Your task to perform on an android device: see creations saved in the google photos Image 0: 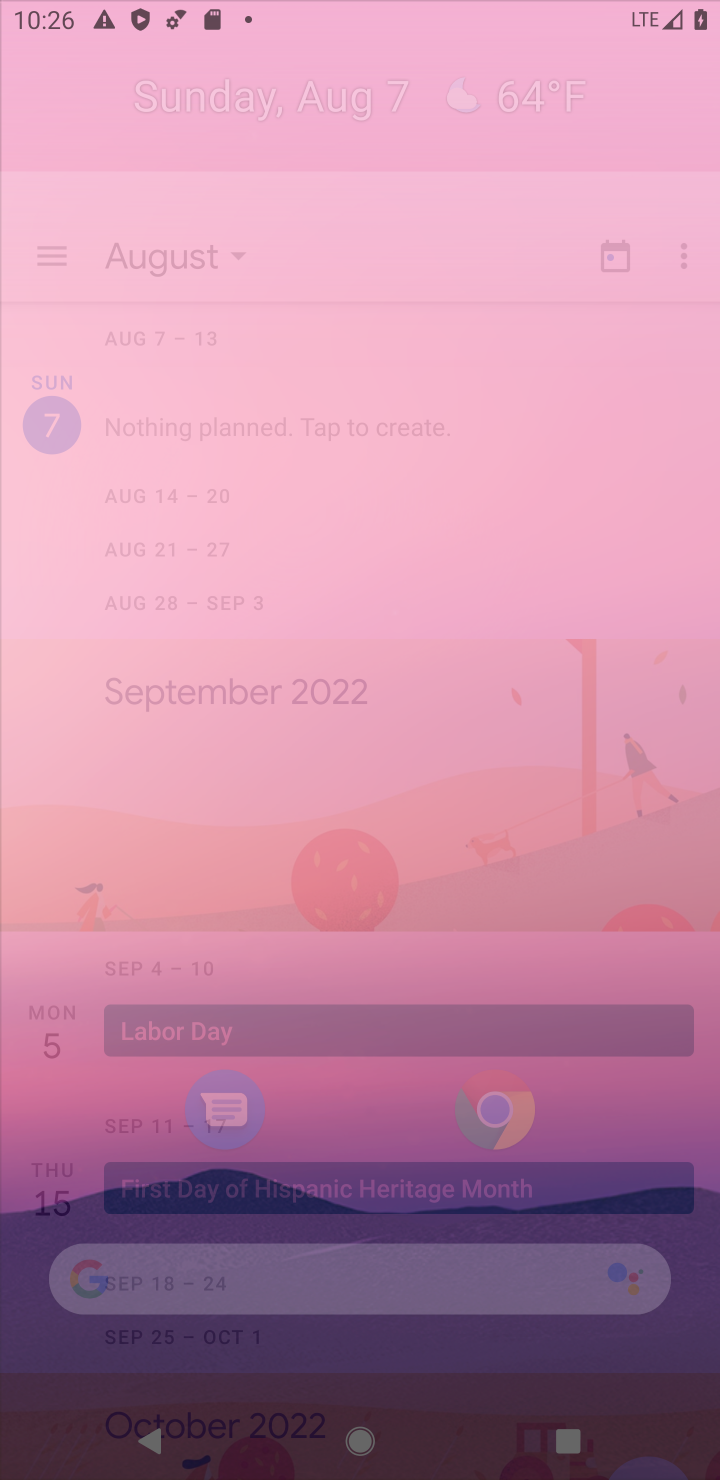
Step 0: press home button
Your task to perform on an android device: see creations saved in the google photos Image 1: 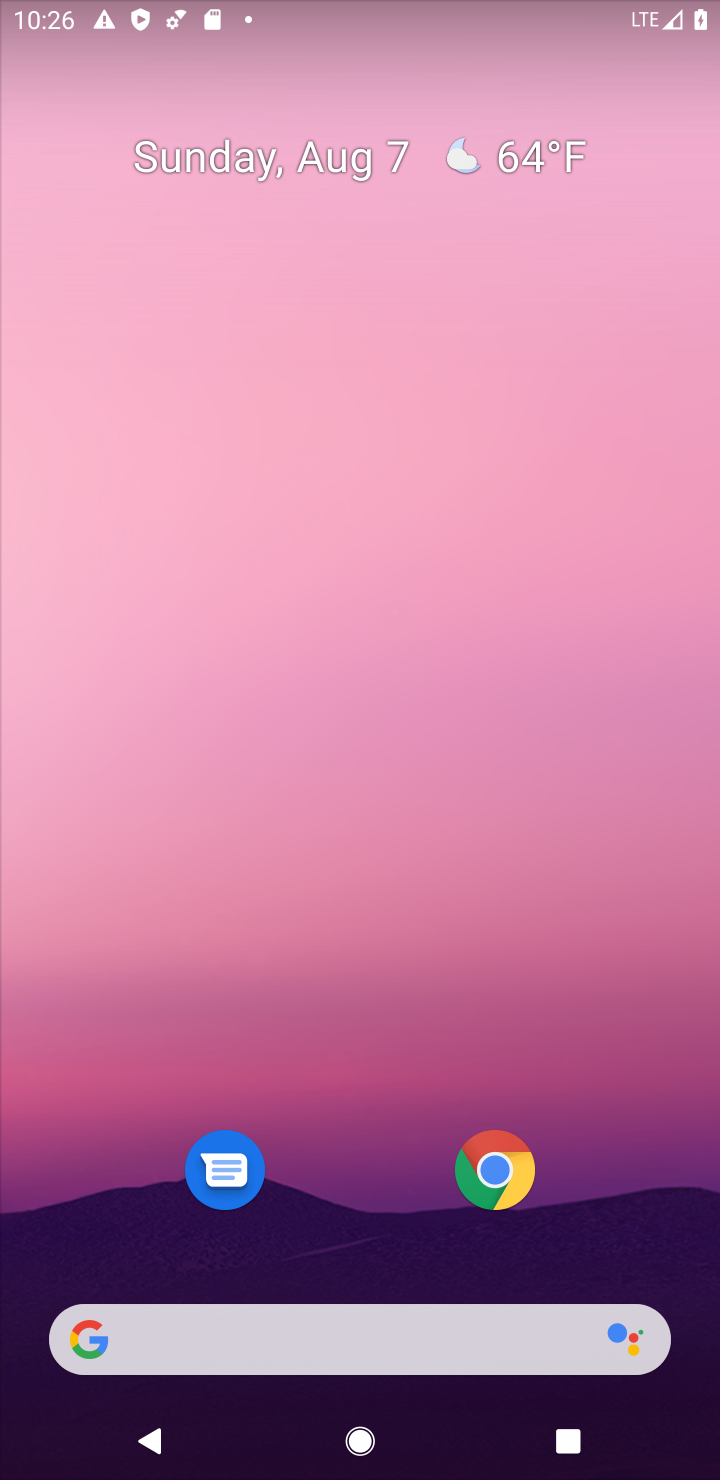
Step 1: drag from (447, 1326) to (440, 43)
Your task to perform on an android device: see creations saved in the google photos Image 2: 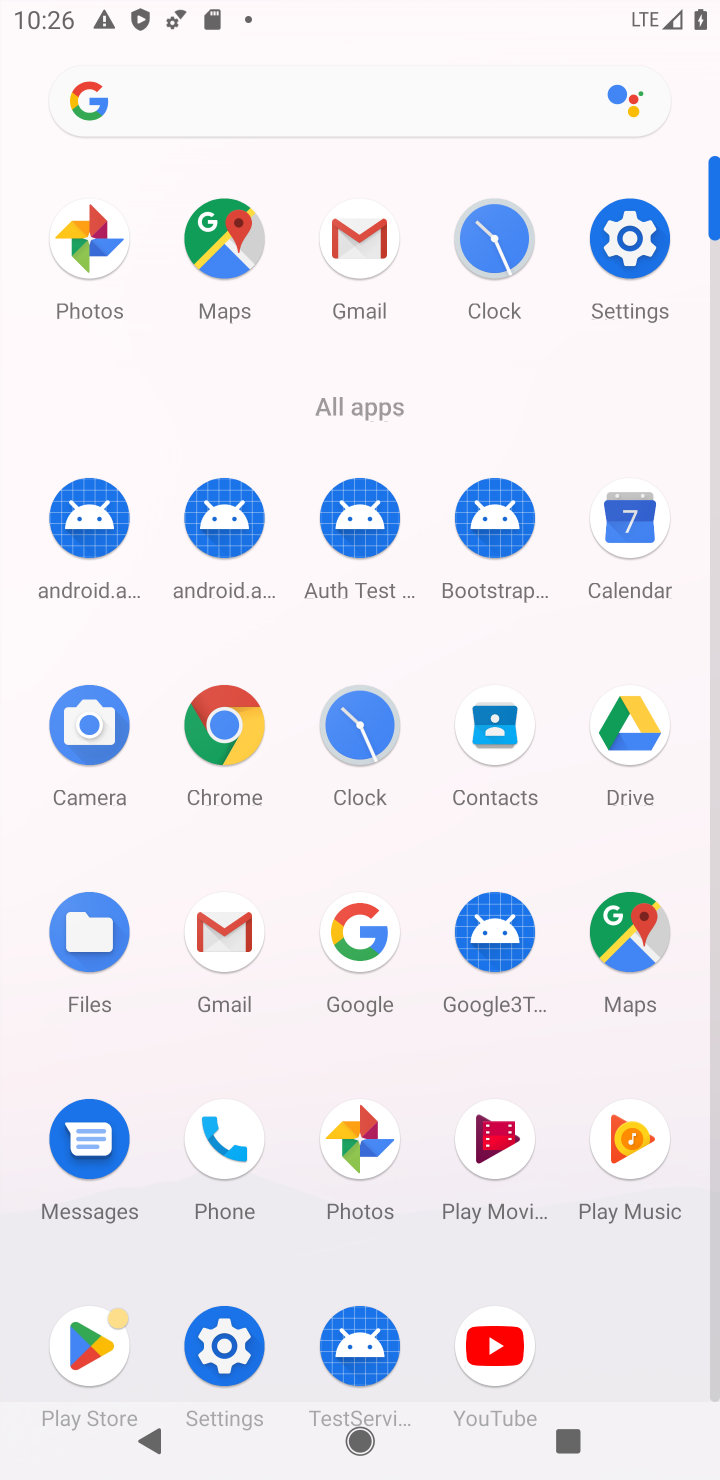
Step 2: click (365, 1117)
Your task to perform on an android device: see creations saved in the google photos Image 3: 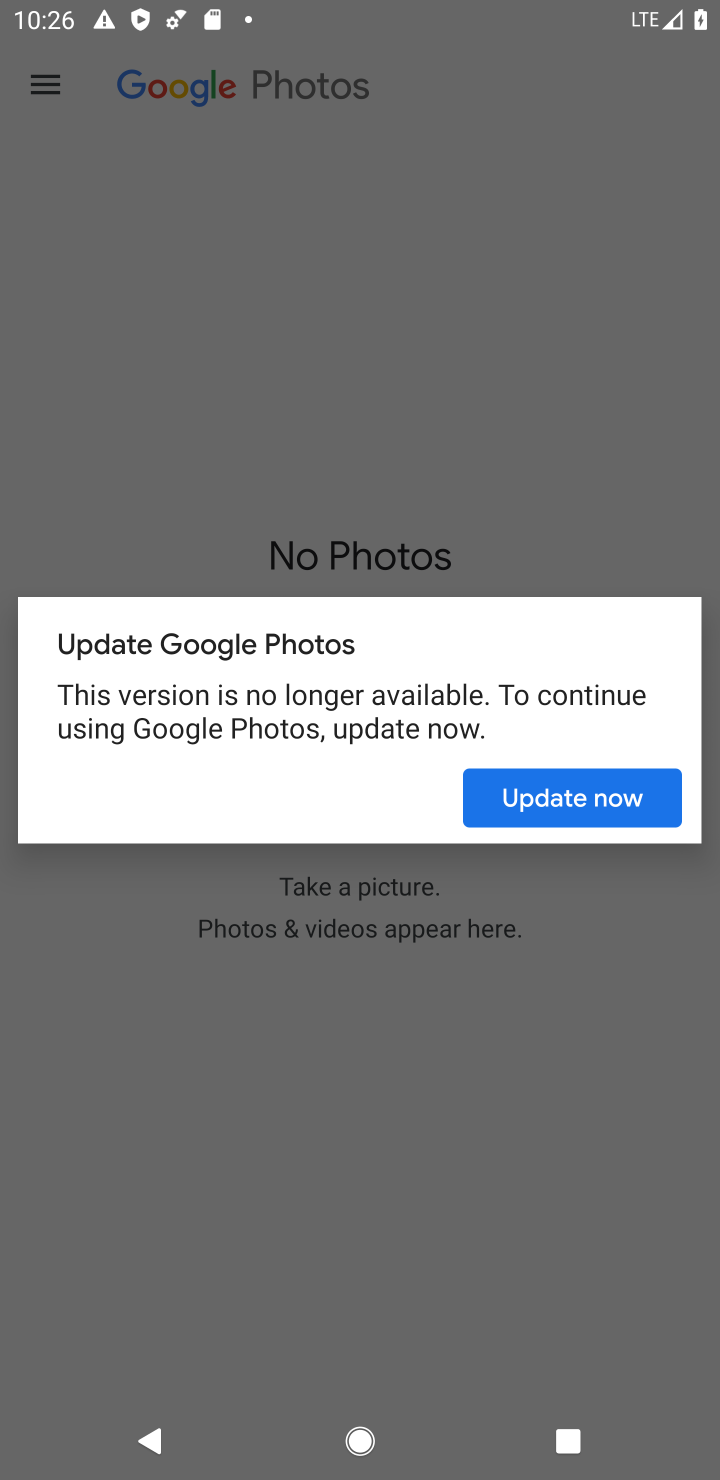
Step 3: click (628, 947)
Your task to perform on an android device: see creations saved in the google photos Image 4: 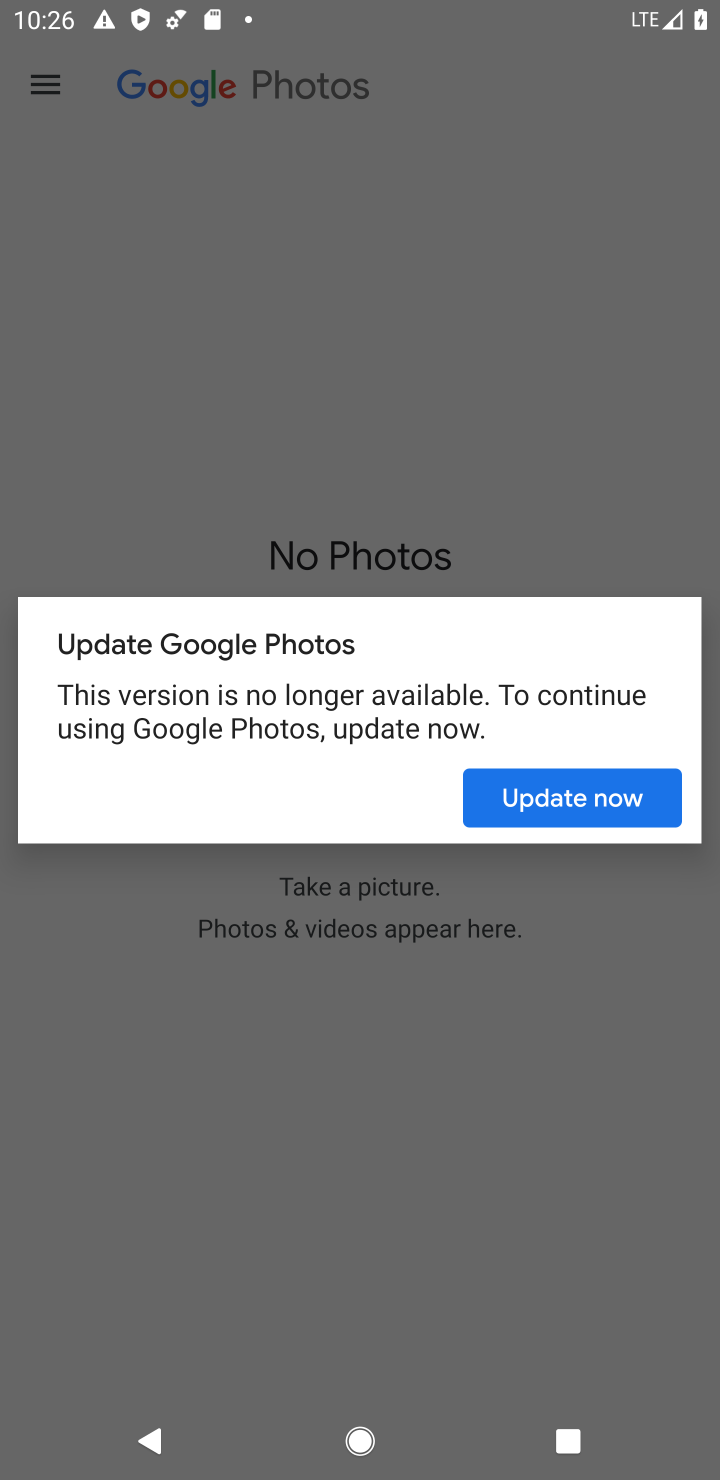
Step 4: click (556, 794)
Your task to perform on an android device: see creations saved in the google photos Image 5: 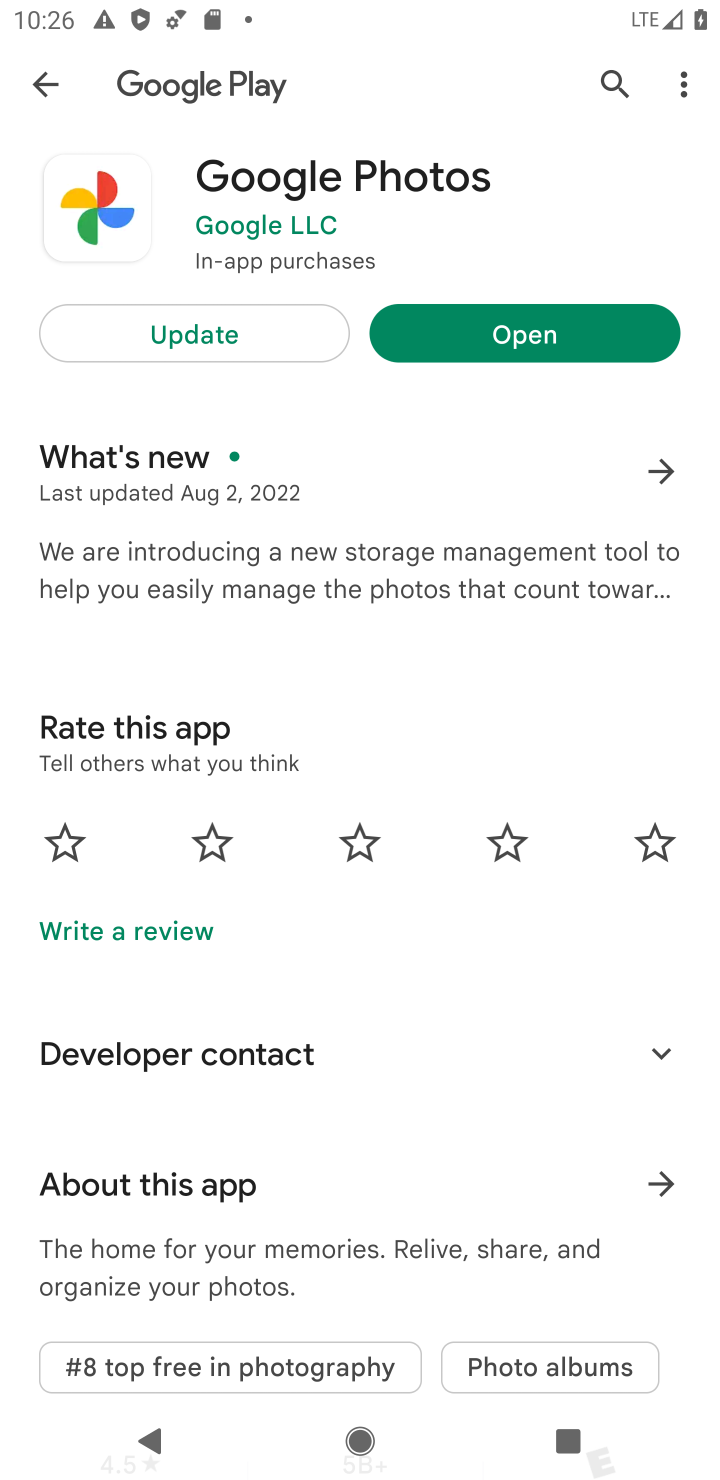
Step 5: click (289, 334)
Your task to perform on an android device: see creations saved in the google photos Image 6: 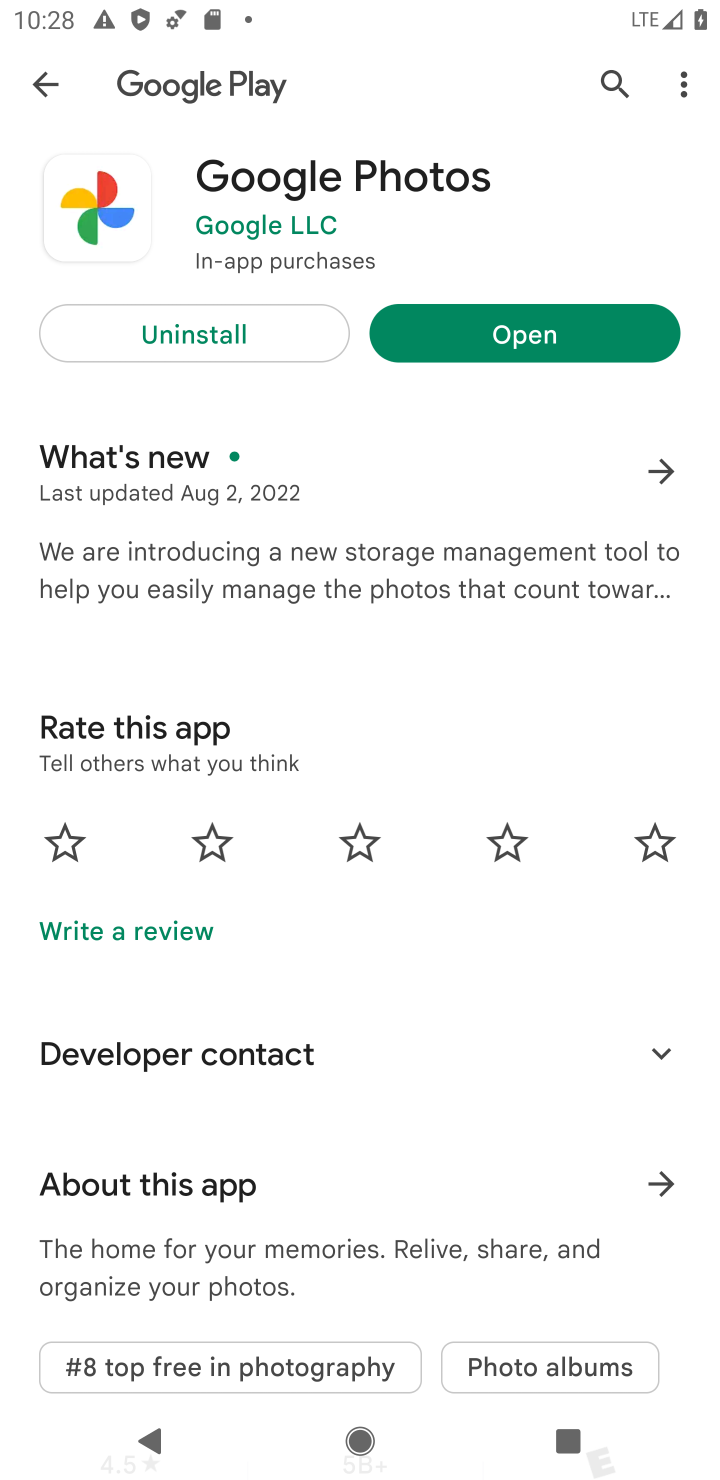
Step 6: click (426, 330)
Your task to perform on an android device: see creations saved in the google photos Image 7: 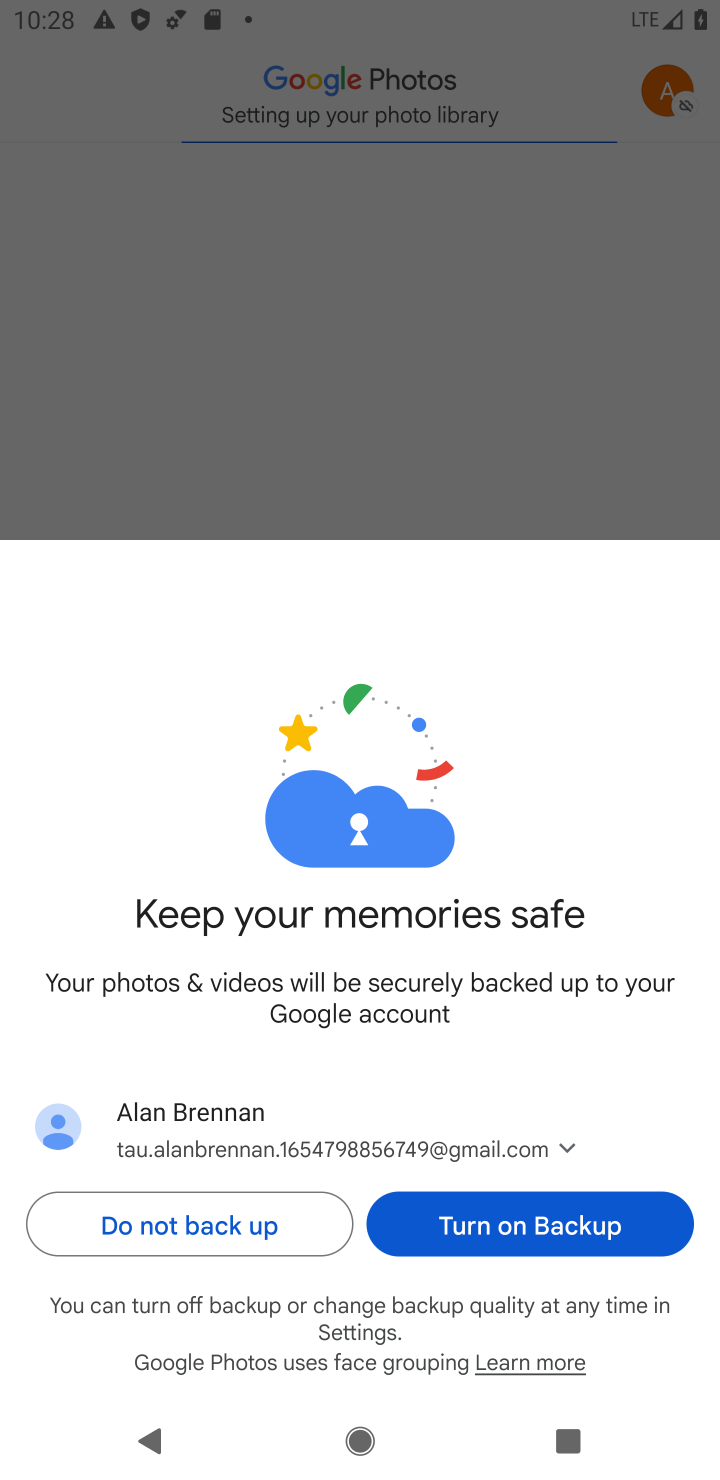
Step 7: click (526, 1214)
Your task to perform on an android device: see creations saved in the google photos Image 8: 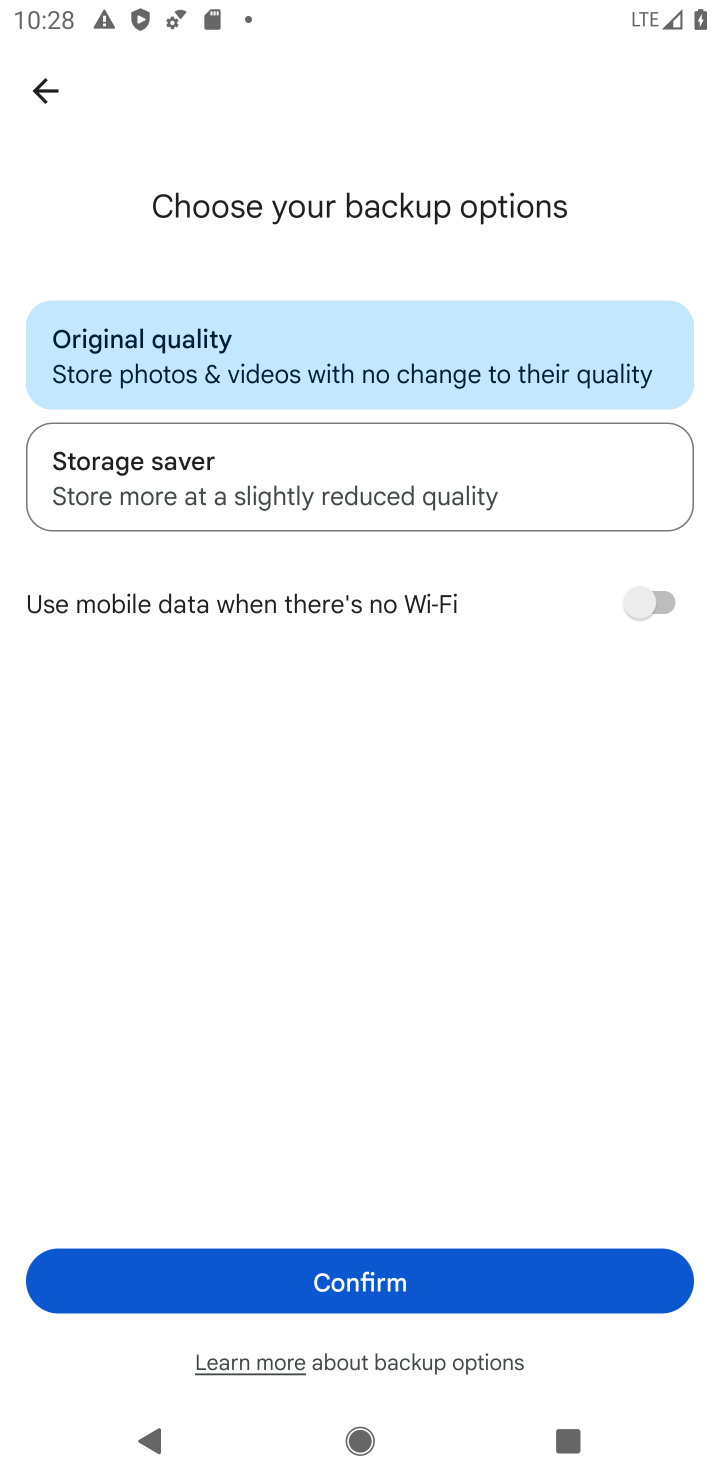
Step 8: click (361, 502)
Your task to perform on an android device: see creations saved in the google photos Image 9: 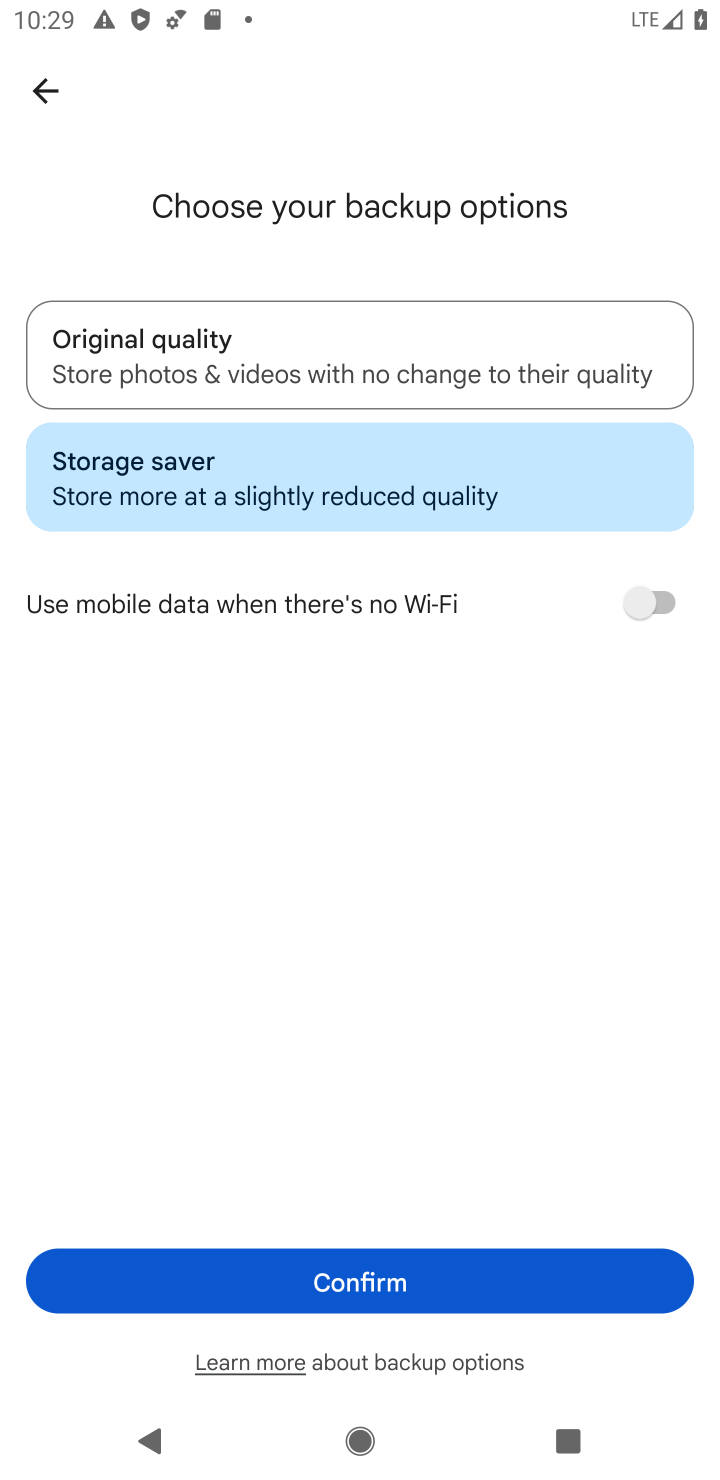
Step 9: click (431, 1265)
Your task to perform on an android device: see creations saved in the google photos Image 10: 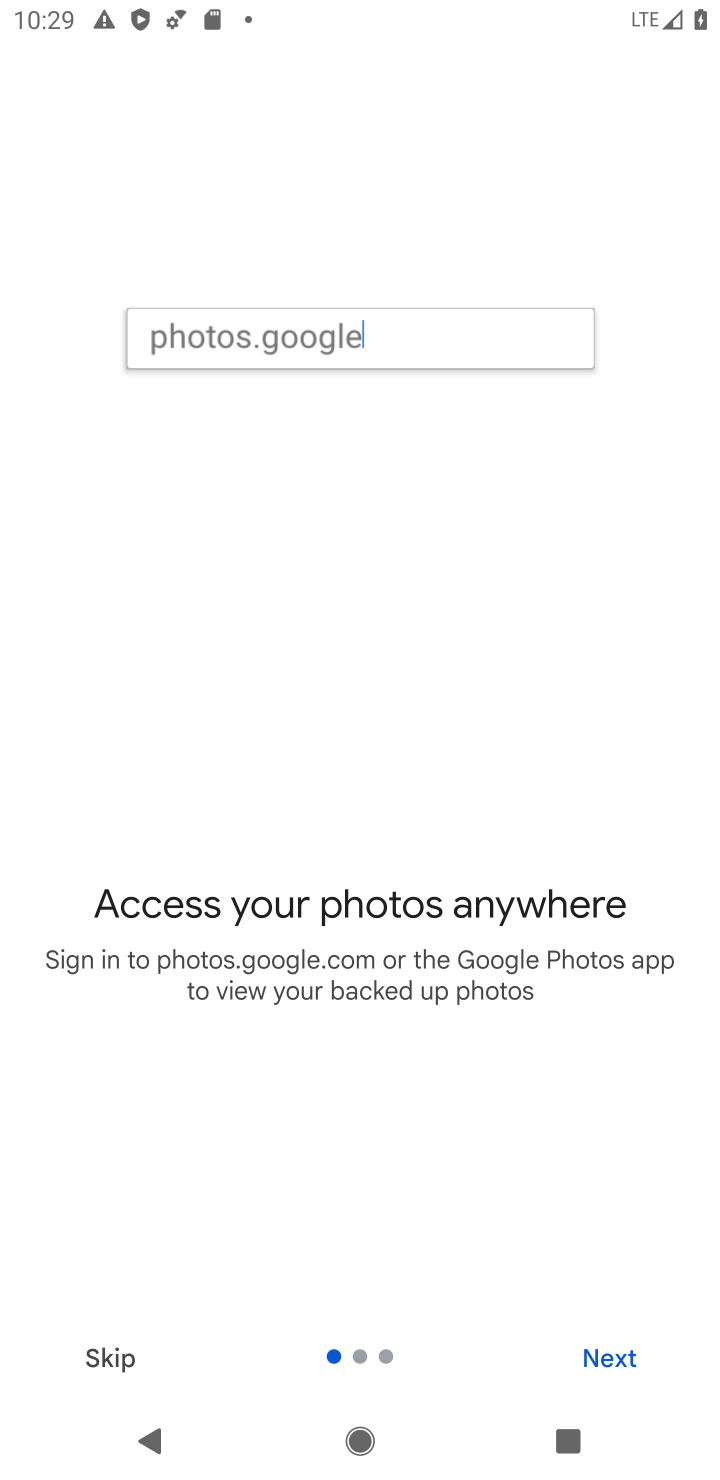
Step 10: click (617, 1340)
Your task to perform on an android device: see creations saved in the google photos Image 11: 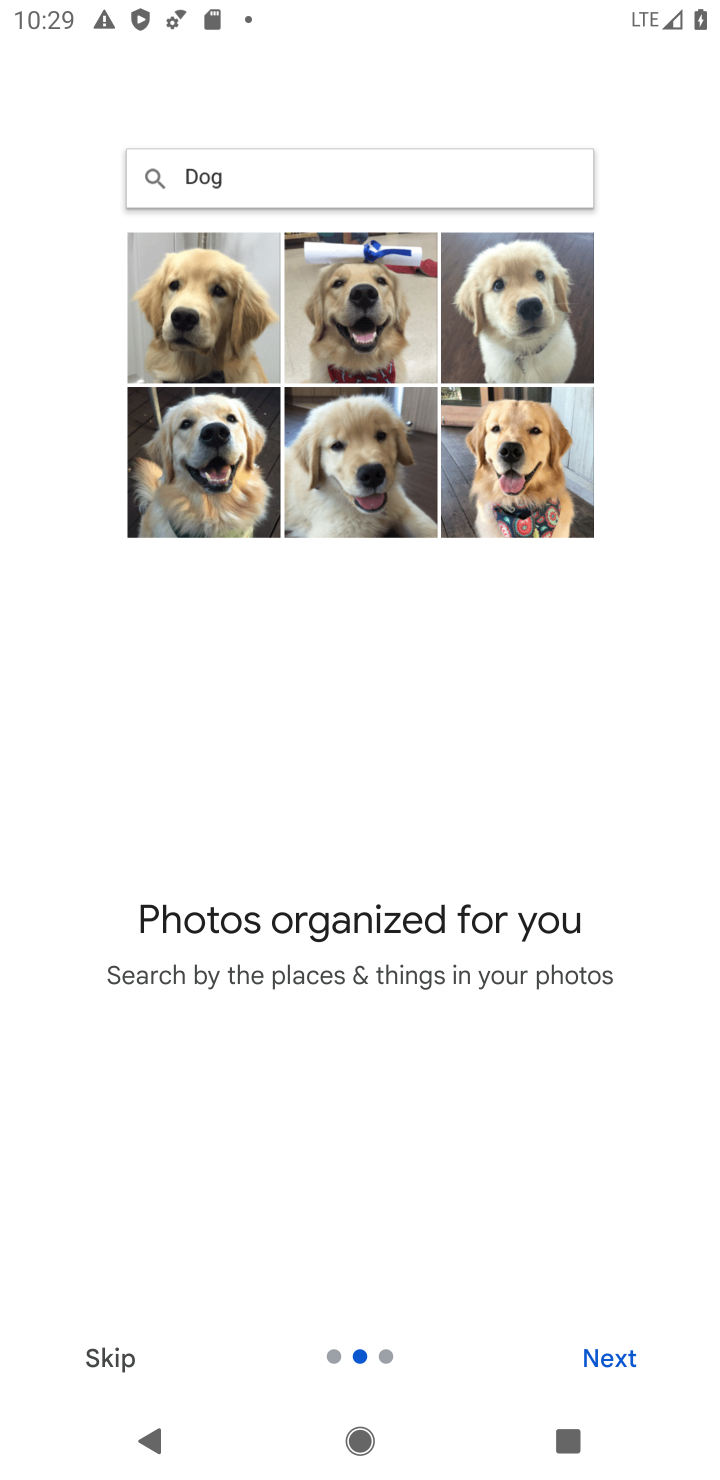
Step 11: click (604, 1355)
Your task to perform on an android device: see creations saved in the google photos Image 12: 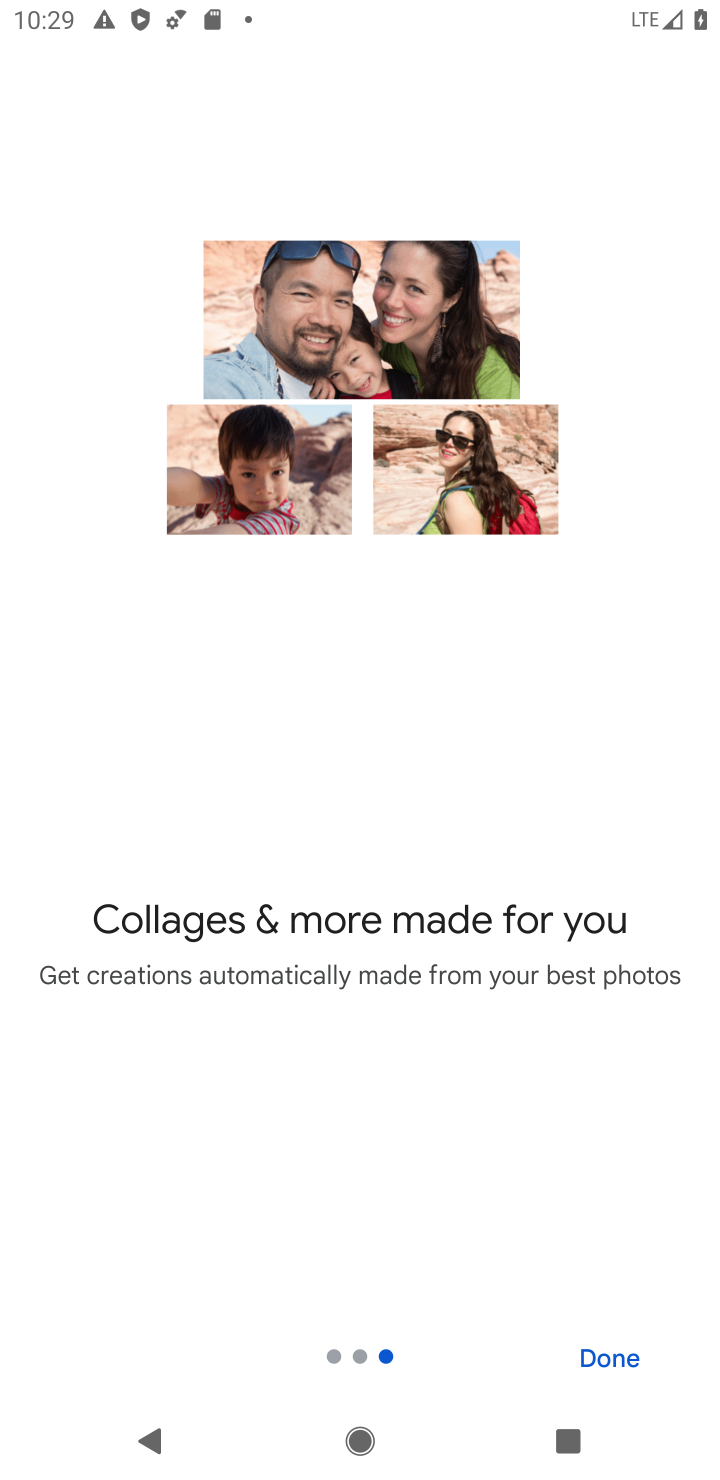
Step 12: click (641, 1360)
Your task to perform on an android device: see creations saved in the google photos Image 13: 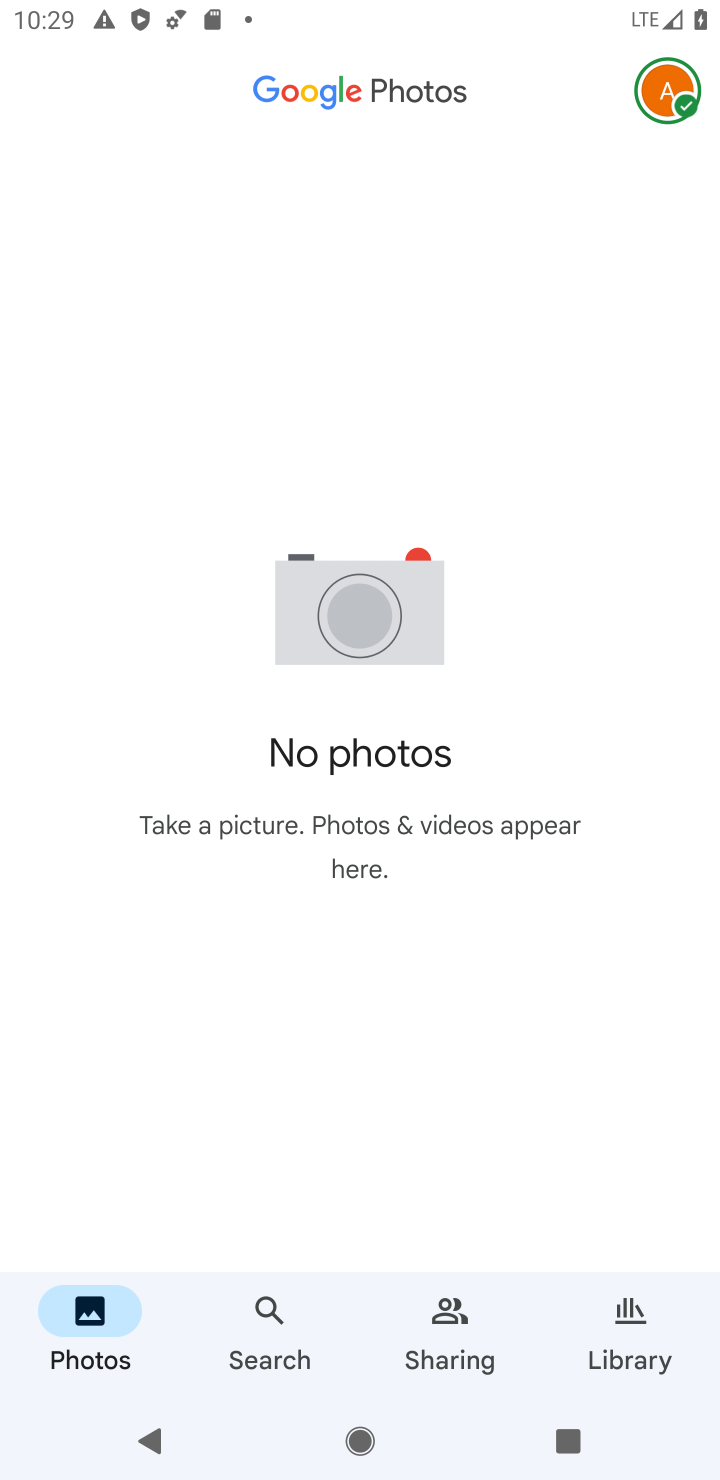
Step 13: task complete